Your task to perform on an android device: turn off wifi Image 0: 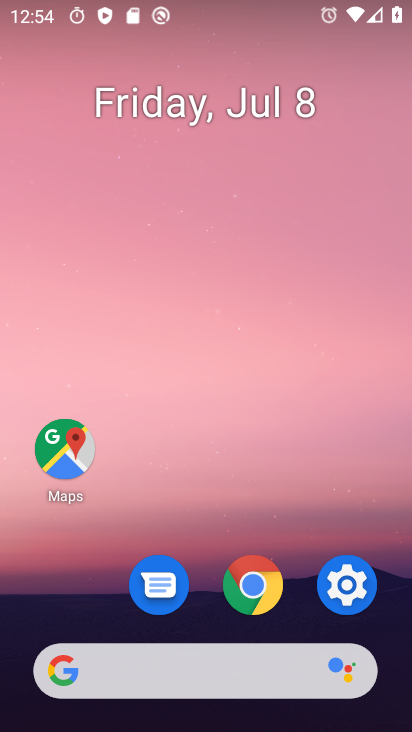
Step 0: press home button
Your task to perform on an android device: turn off wifi Image 1: 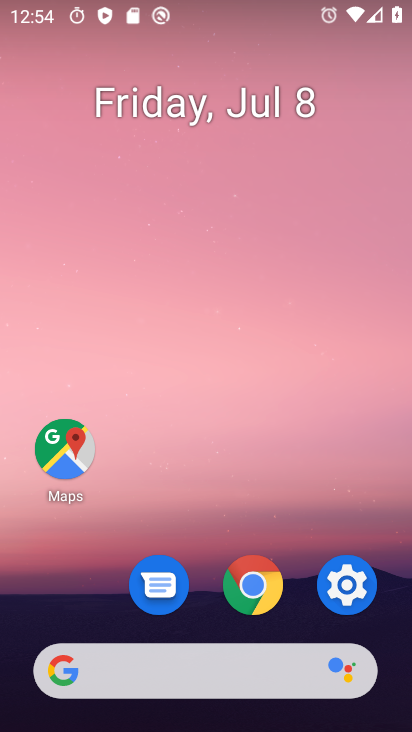
Step 1: click (335, 573)
Your task to perform on an android device: turn off wifi Image 2: 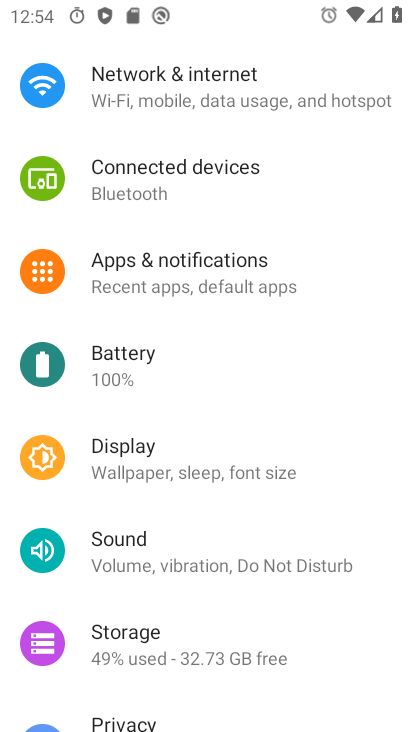
Step 2: click (160, 105)
Your task to perform on an android device: turn off wifi Image 3: 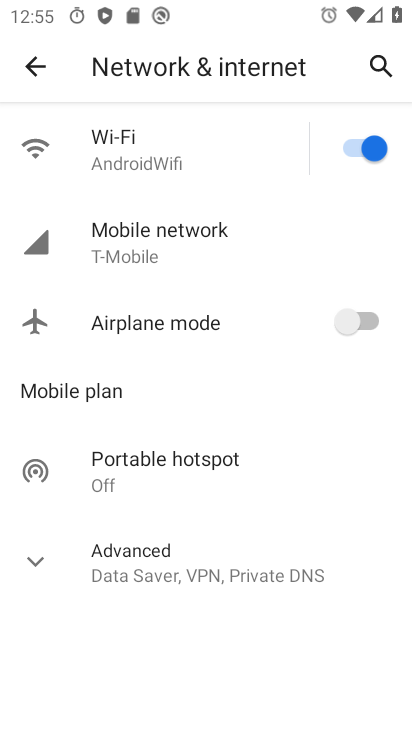
Step 3: click (167, 157)
Your task to perform on an android device: turn off wifi Image 4: 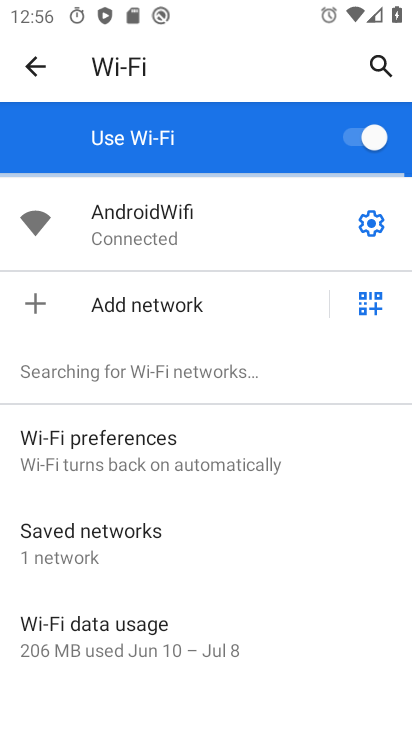
Step 4: task complete